Your task to perform on an android device: see sites visited before in the chrome app Image 0: 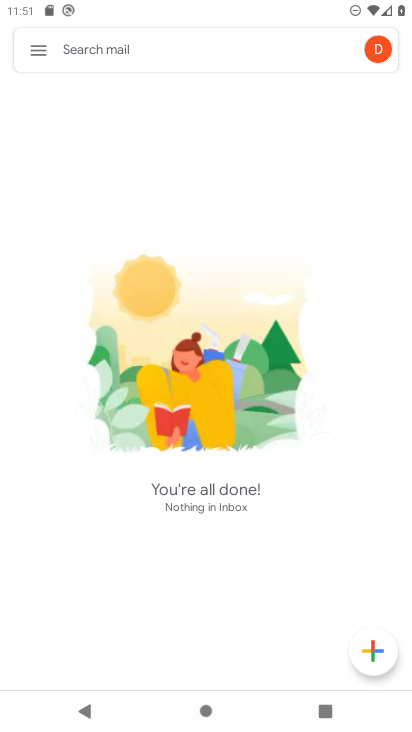
Step 0: press home button
Your task to perform on an android device: see sites visited before in the chrome app Image 1: 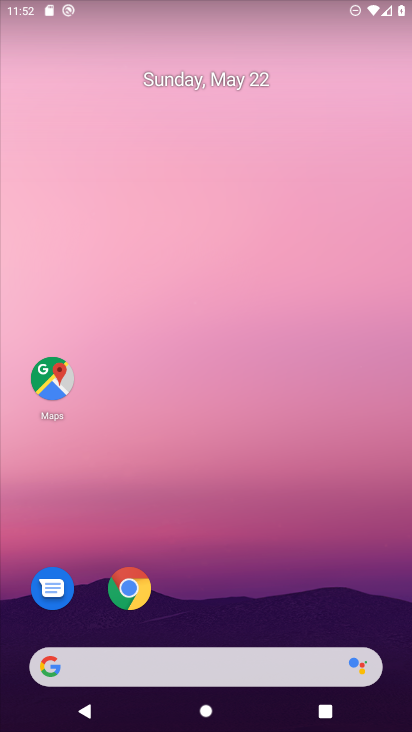
Step 1: drag from (270, 693) to (189, 28)
Your task to perform on an android device: see sites visited before in the chrome app Image 2: 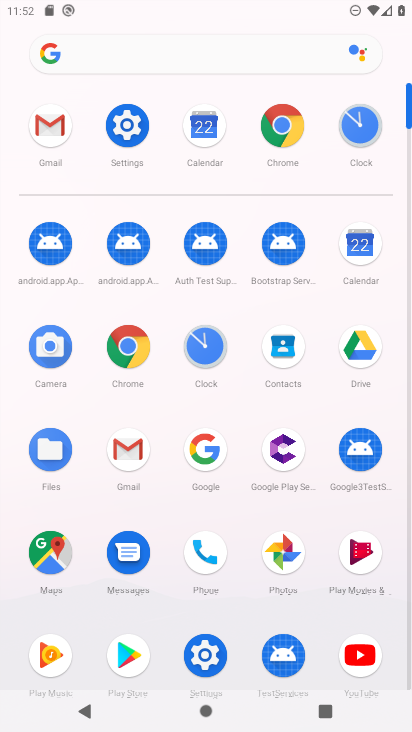
Step 2: click (270, 137)
Your task to perform on an android device: see sites visited before in the chrome app Image 3: 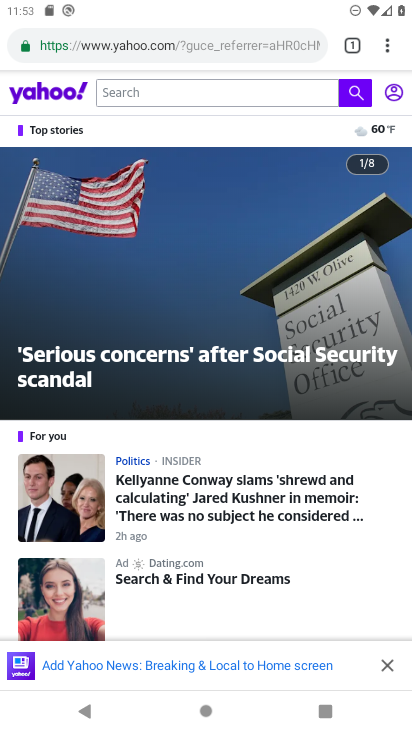
Step 3: click (386, 55)
Your task to perform on an android device: see sites visited before in the chrome app Image 4: 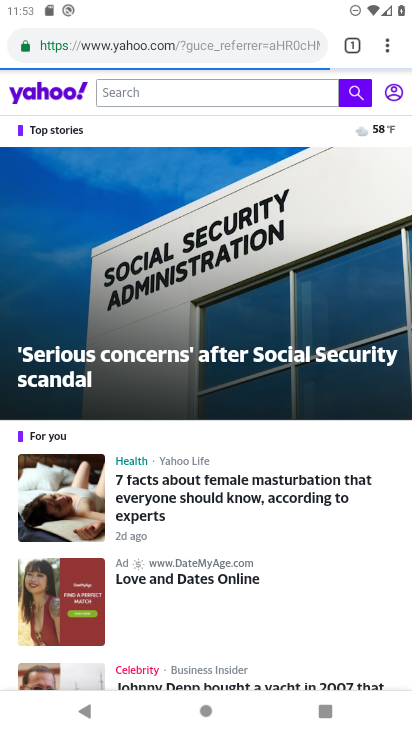
Step 4: click (382, 49)
Your task to perform on an android device: see sites visited before in the chrome app Image 5: 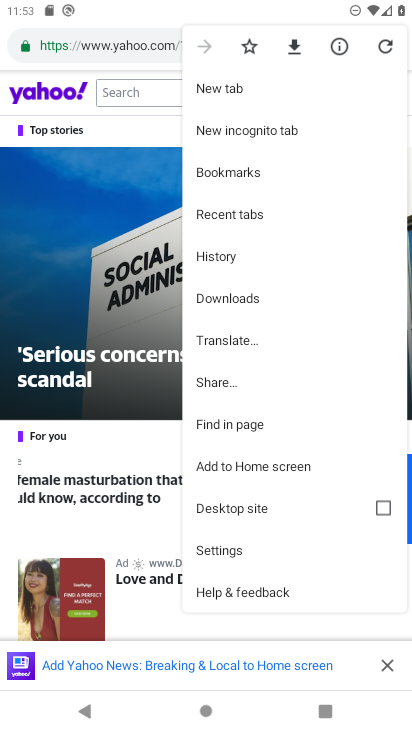
Step 5: click (251, 553)
Your task to perform on an android device: see sites visited before in the chrome app Image 6: 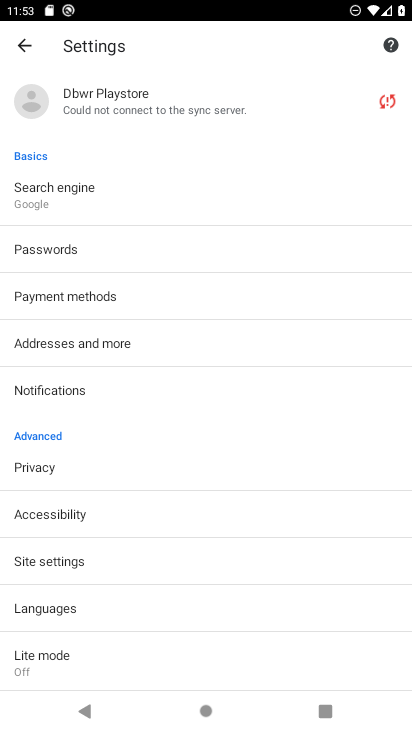
Step 6: click (80, 552)
Your task to perform on an android device: see sites visited before in the chrome app Image 7: 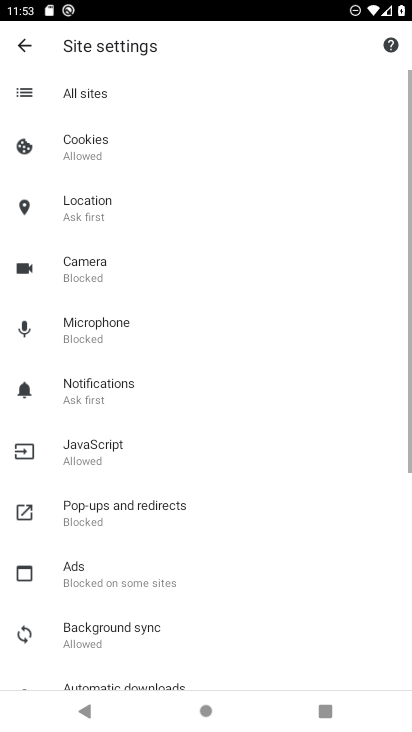
Step 7: click (108, 92)
Your task to perform on an android device: see sites visited before in the chrome app Image 8: 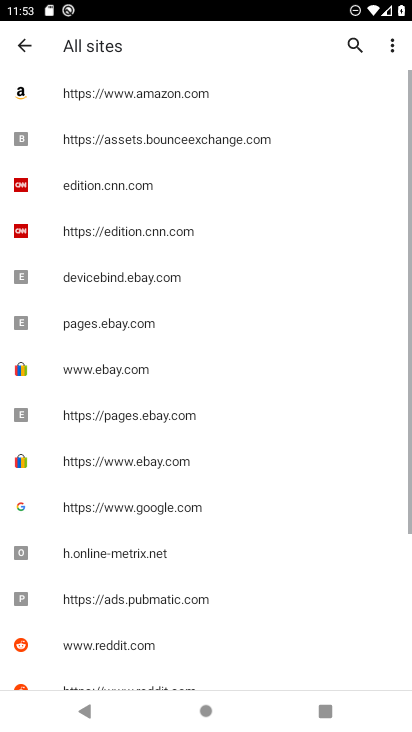
Step 8: click (180, 135)
Your task to perform on an android device: see sites visited before in the chrome app Image 9: 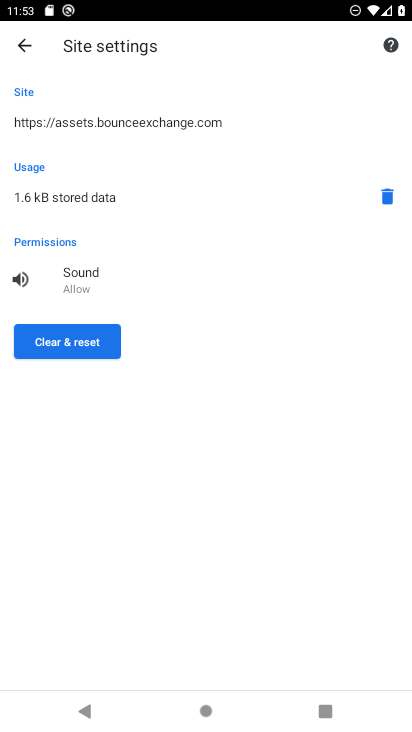
Step 9: task complete